Your task to perform on an android device: Go to Google maps Image 0: 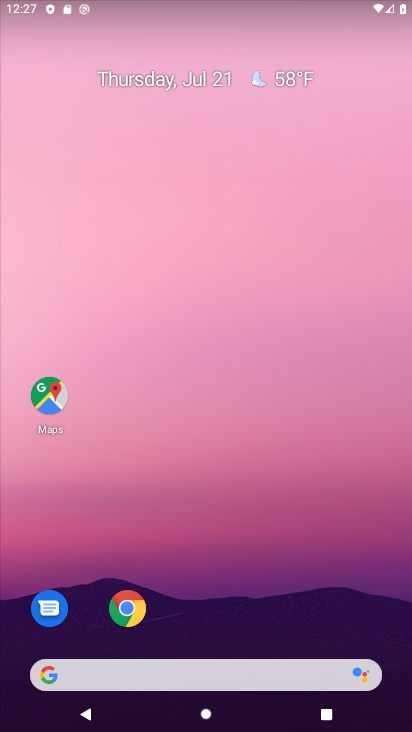
Step 0: press home button
Your task to perform on an android device: Go to Google maps Image 1: 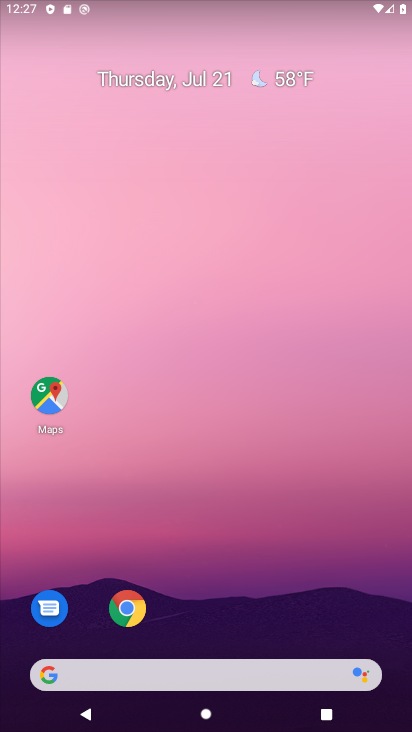
Step 1: click (46, 399)
Your task to perform on an android device: Go to Google maps Image 2: 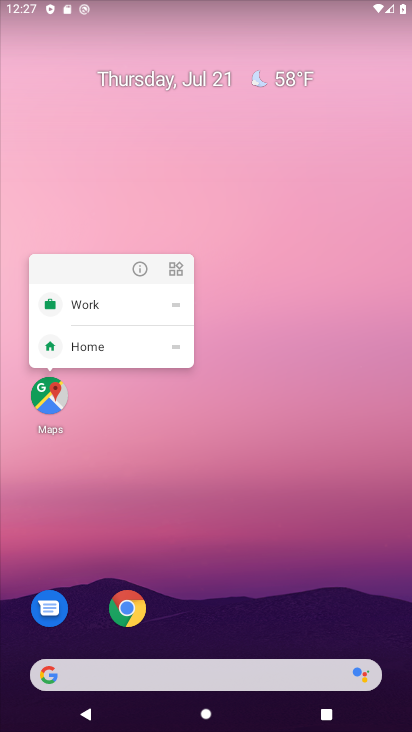
Step 2: click (46, 399)
Your task to perform on an android device: Go to Google maps Image 3: 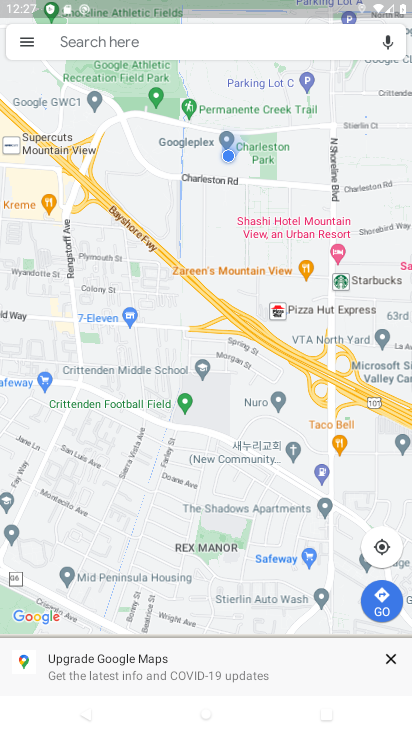
Step 3: click (17, 36)
Your task to perform on an android device: Go to Google maps Image 4: 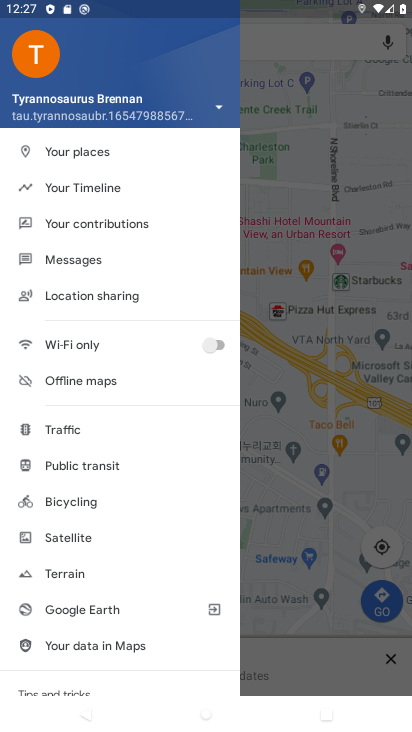
Step 4: click (300, 460)
Your task to perform on an android device: Go to Google maps Image 5: 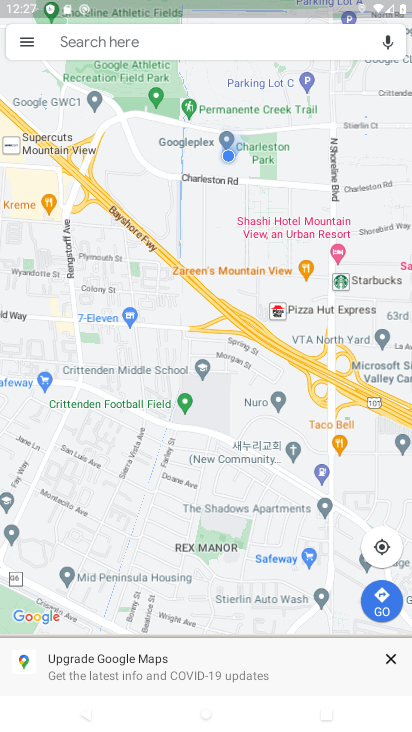
Step 5: task complete